Your task to perform on an android device: Set the phone to "Do not disturb". Image 0: 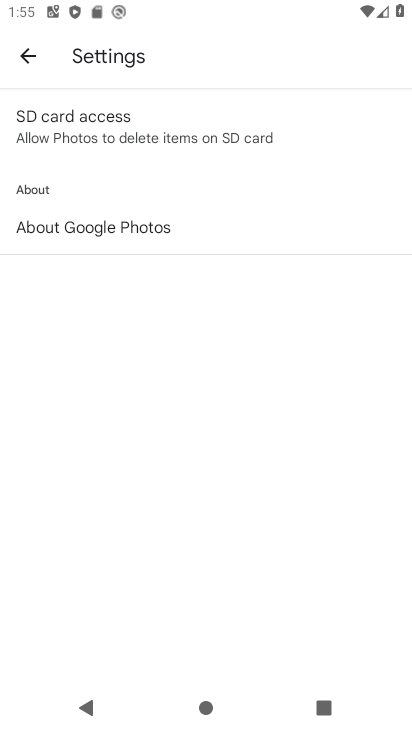
Step 0: press home button
Your task to perform on an android device: Set the phone to "Do not disturb". Image 1: 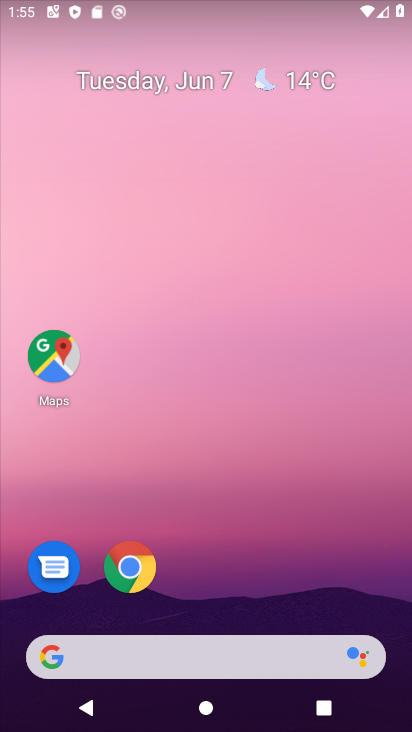
Step 1: drag from (285, 571) to (280, 0)
Your task to perform on an android device: Set the phone to "Do not disturb". Image 2: 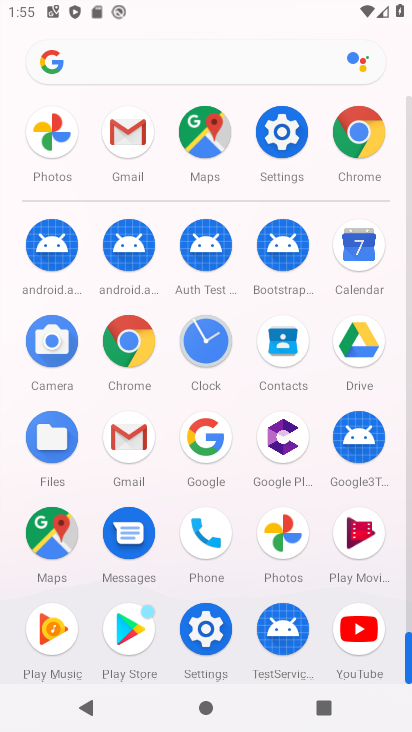
Step 2: click (287, 136)
Your task to perform on an android device: Set the phone to "Do not disturb". Image 3: 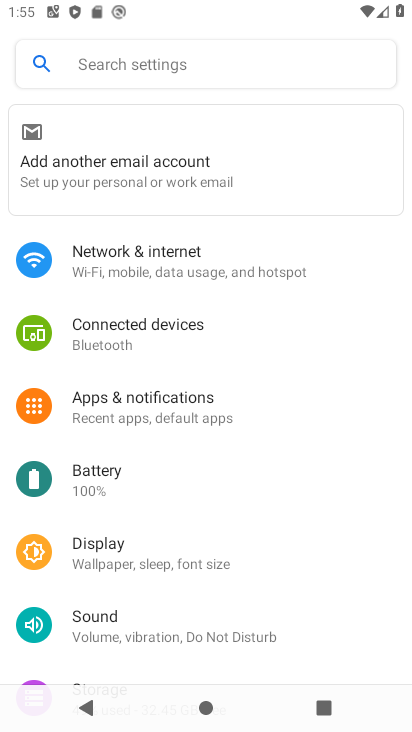
Step 3: drag from (196, 495) to (130, 196)
Your task to perform on an android device: Set the phone to "Do not disturb". Image 4: 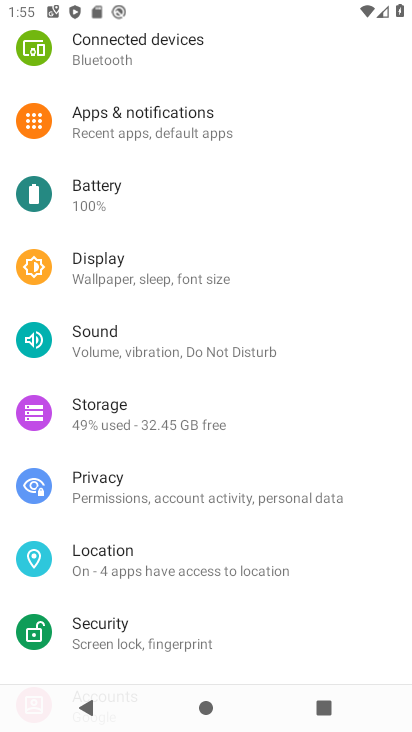
Step 4: click (101, 357)
Your task to perform on an android device: Set the phone to "Do not disturb". Image 5: 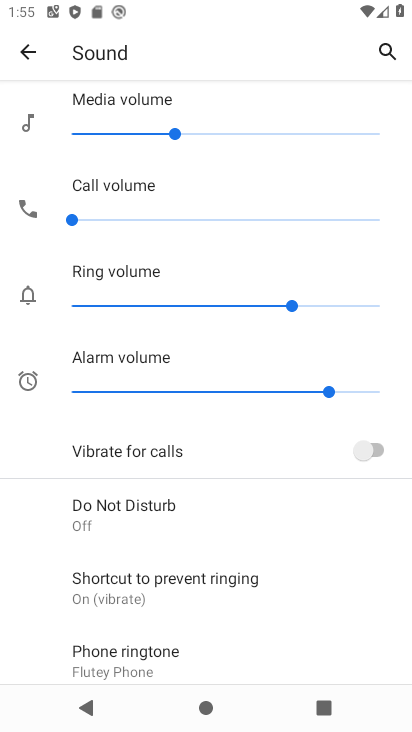
Step 5: click (130, 495)
Your task to perform on an android device: Set the phone to "Do not disturb". Image 6: 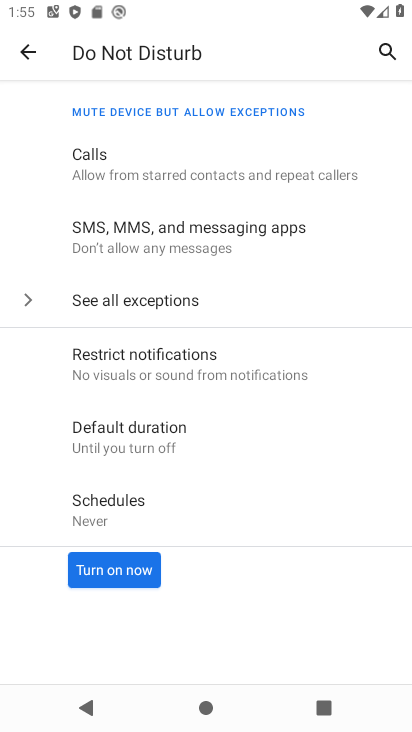
Step 6: click (116, 568)
Your task to perform on an android device: Set the phone to "Do not disturb". Image 7: 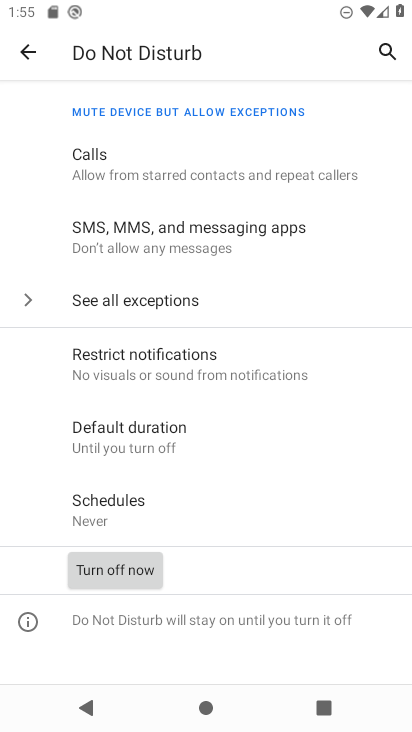
Step 7: task complete